Your task to perform on an android device: add a contact in the contacts app Image 0: 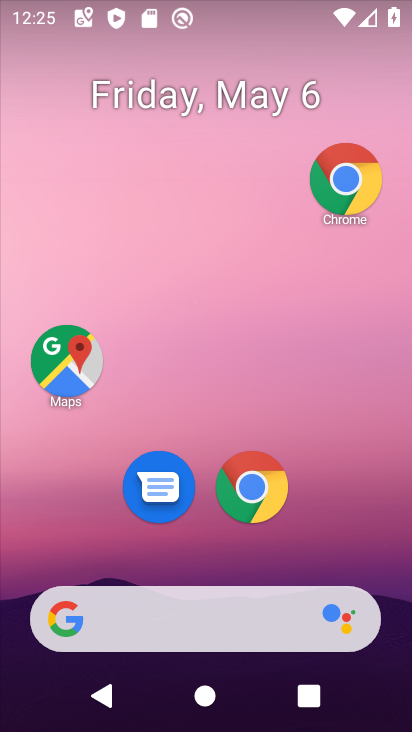
Step 0: drag from (314, 530) to (283, 189)
Your task to perform on an android device: add a contact in the contacts app Image 1: 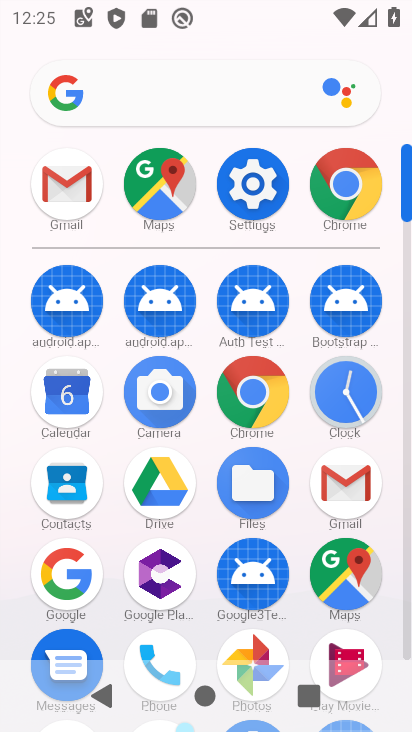
Step 1: click (410, 622)
Your task to perform on an android device: add a contact in the contacts app Image 2: 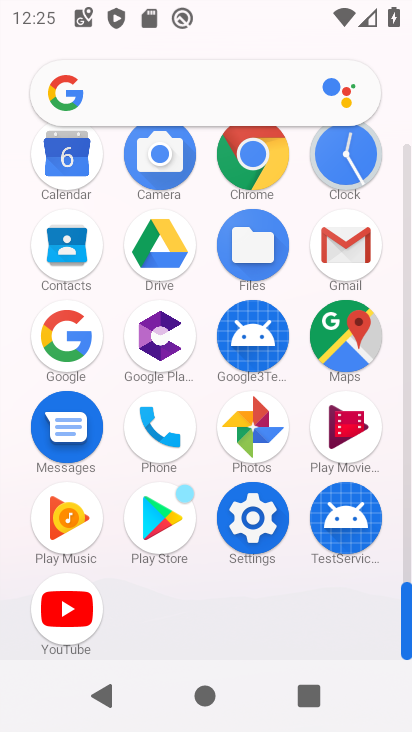
Step 2: click (70, 244)
Your task to perform on an android device: add a contact in the contacts app Image 3: 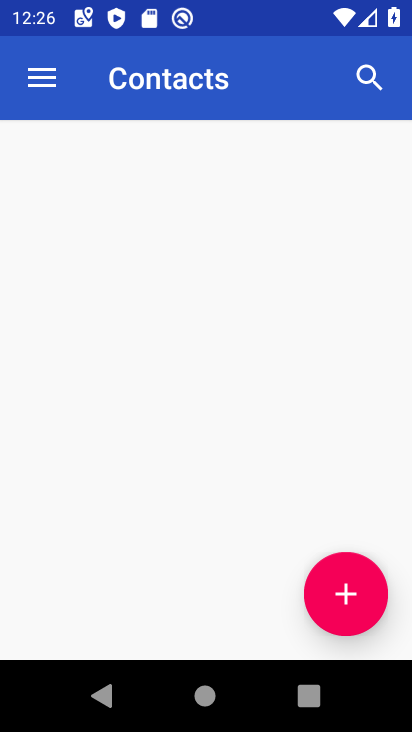
Step 3: click (355, 594)
Your task to perform on an android device: add a contact in the contacts app Image 4: 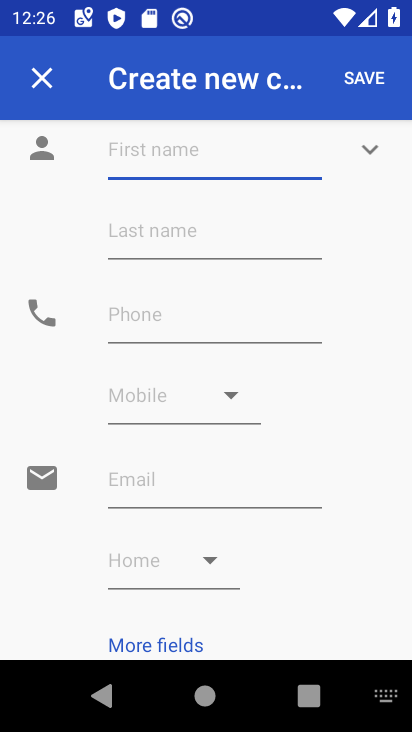
Step 4: type "daad"
Your task to perform on an android device: add a contact in the contacts app Image 5: 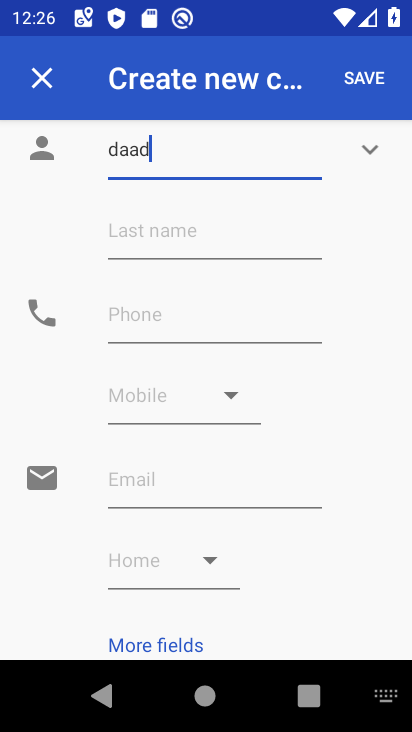
Step 5: click (264, 240)
Your task to perform on an android device: add a contact in the contacts app Image 6: 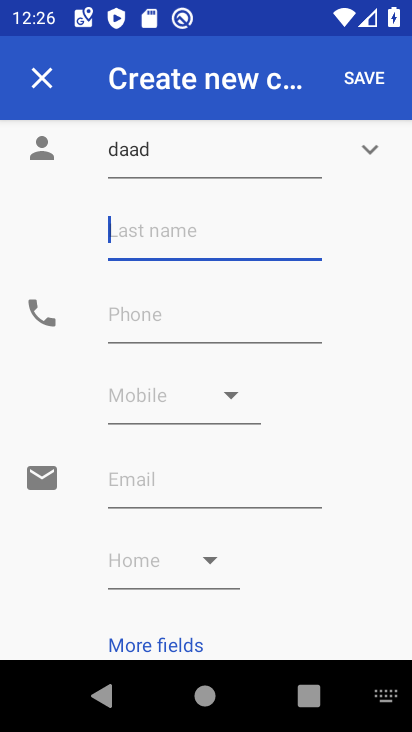
Step 6: type "adad"
Your task to perform on an android device: add a contact in the contacts app Image 7: 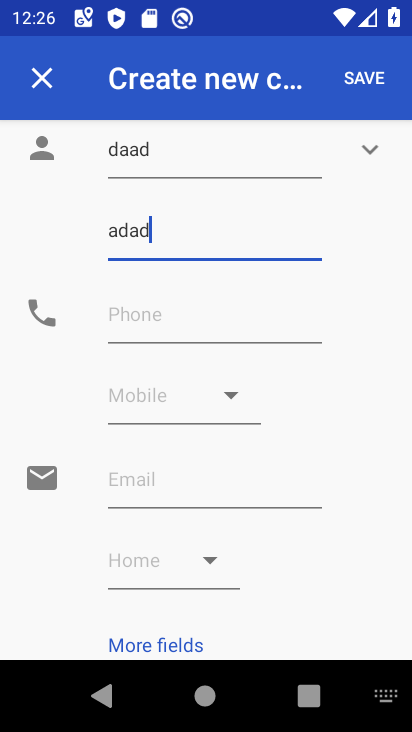
Step 7: click (195, 338)
Your task to perform on an android device: add a contact in the contacts app Image 8: 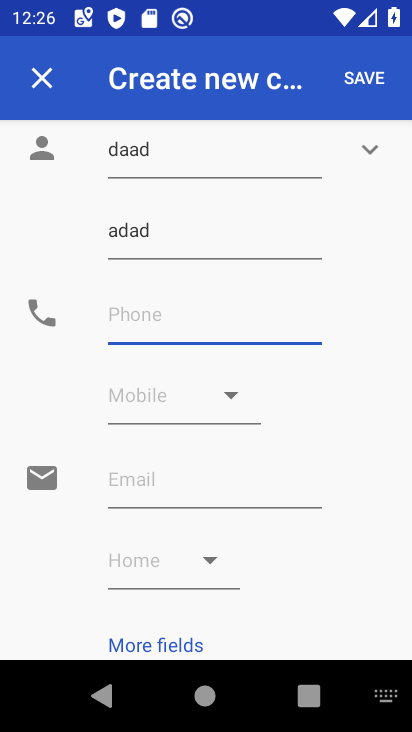
Step 8: type "342332525"
Your task to perform on an android device: add a contact in the contacts app Image 9: 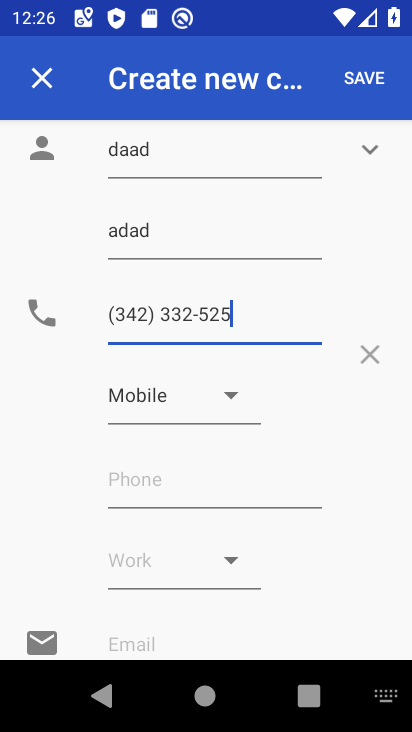
Step 9: task complete